Your task to perform on an android device: Set the phone to "Do not disturb". Image 0: 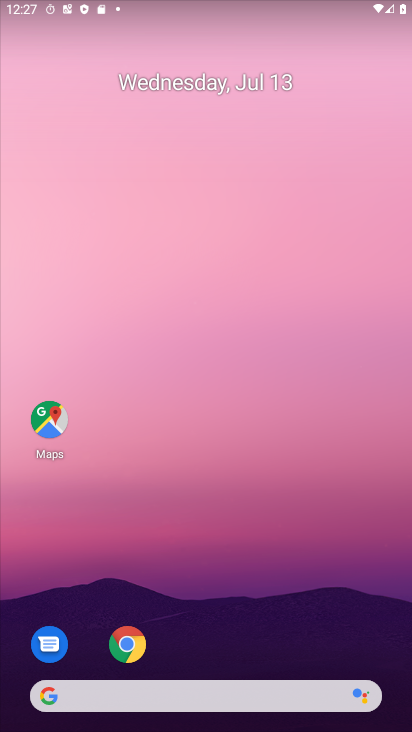
Step 0: drag from (221, 651) to (260, 140)
Your task to perform on an android device: Set the phone to "Do not disturb". Image 1: 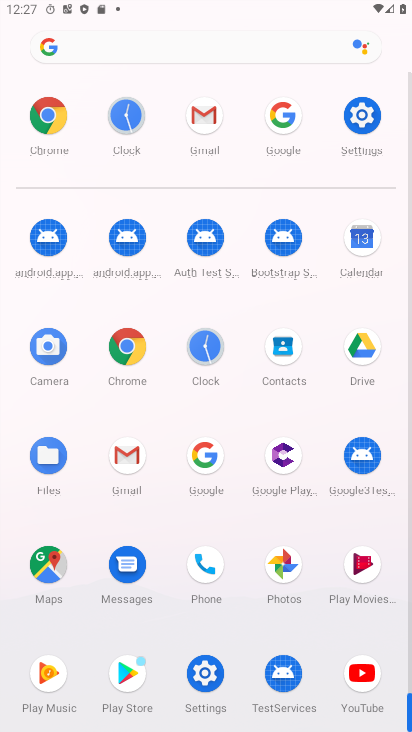
Step 1: click (363, 118)
Your task to perform on an android device: Set the phone to "Do not disturb". Image 2: 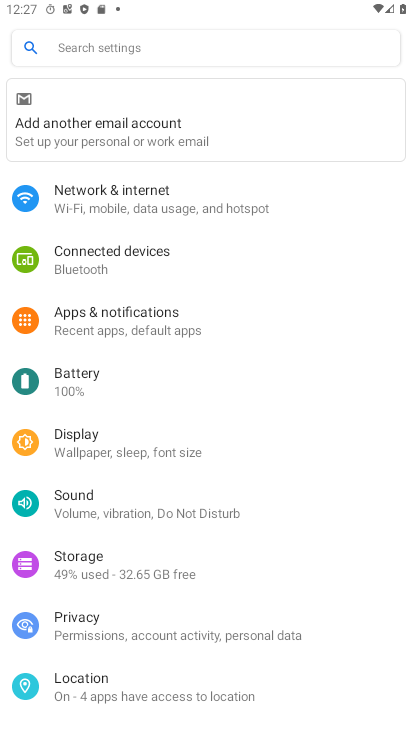
Step 2: click (154, 495)
Your task to perform on an android device: Set the phone to "Do not disturb". Image 3: 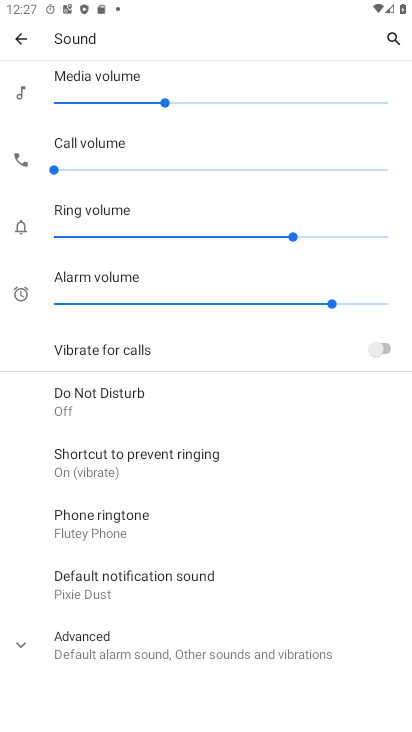
Step 3: click (138, 417)
Your task to perform on an android device: Set the phone to "Do not disturb". Image 4: 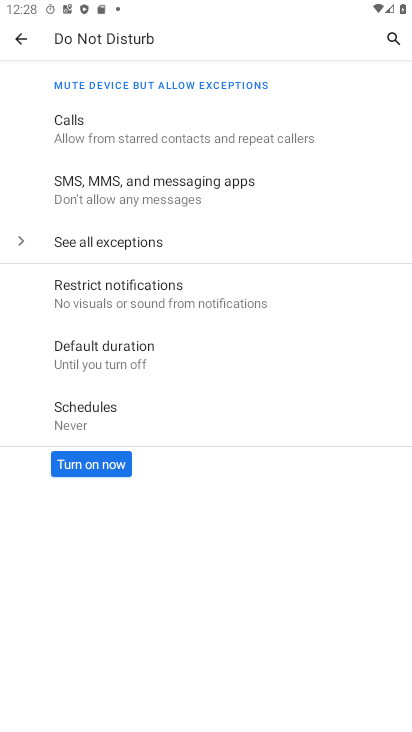
Step 4: click (101, 465)
Your task to perform on an android device: Set the phone to "Do not disturb". Image 5: 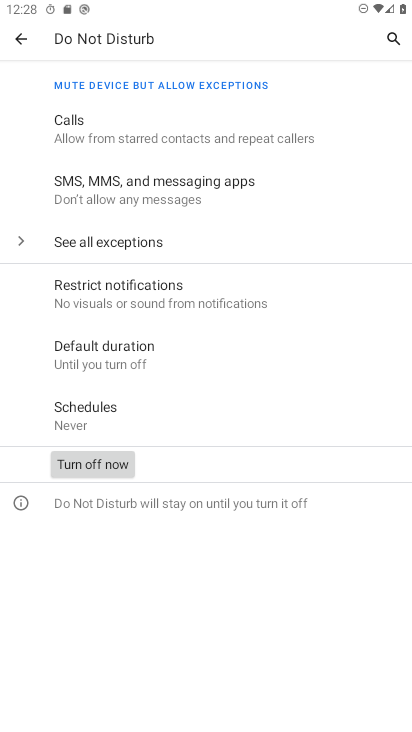
Step 5: task complete